Your task to perform on an android device: stop showing notifications on the lock screen Image 0: 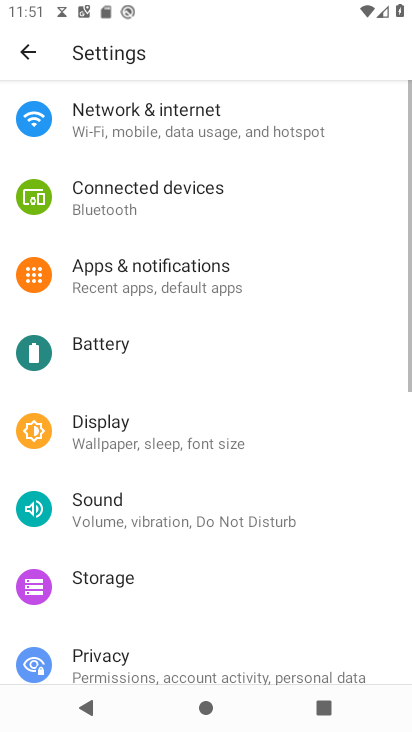
Step 0: drag from (323, 470) to (409, 363)
Your task to perform on an android device: stop showing notifications on the lock screen Image 1: 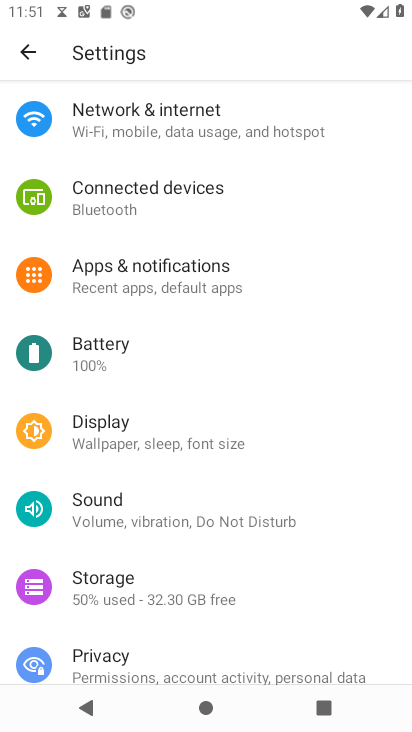
Step 1: drag from (260, 591) to (237, 258)
Your task to perform on an android device: stop showing notifications on the lock screen Image 2: 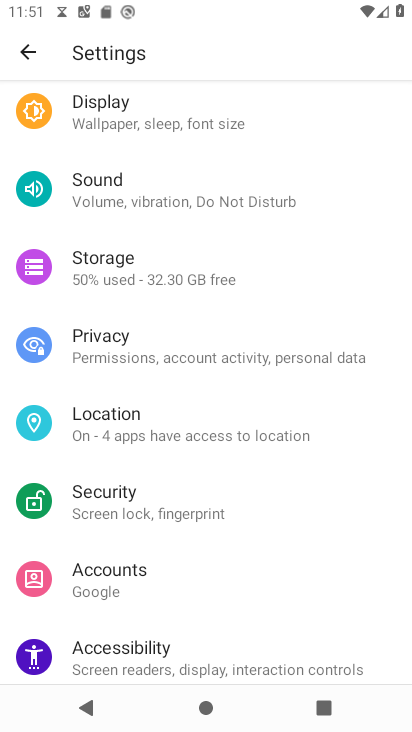
Step 2: click (229, 119)
Your task to perform on an android device: stop showing notifications on the lock screen Image 3: 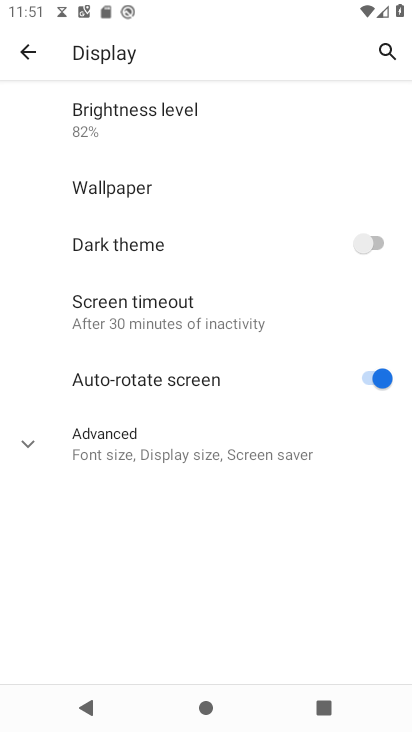
Step 3: press home button
Your task to perform on an android device: stop showing notifications on the lock screen Image 4: 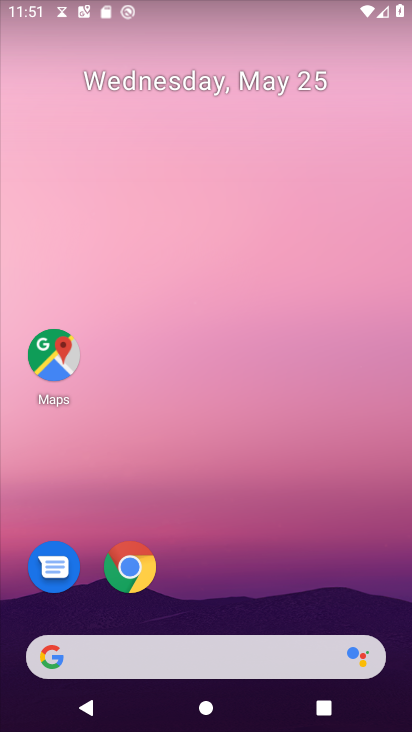
Step 4: drag from (278, 502) to (257, 240)
Your task to perform on an android device: stop showing notifications on the lock screen Image 5: 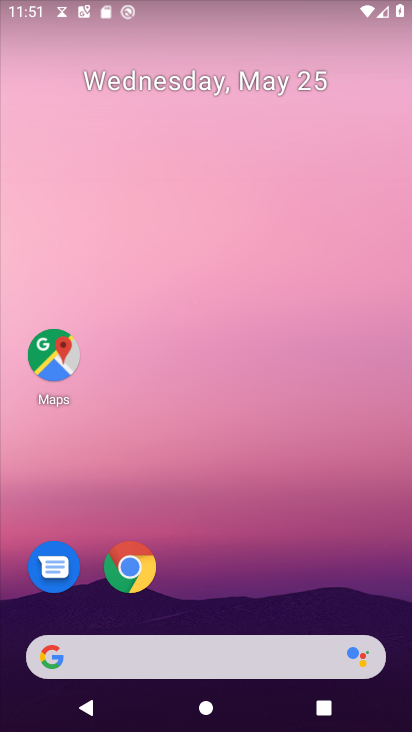
Step 5: drag from (265, 605) to (278, 65)
Your task to perform on an android device: stop showing notifications on the lock screen Image 6: 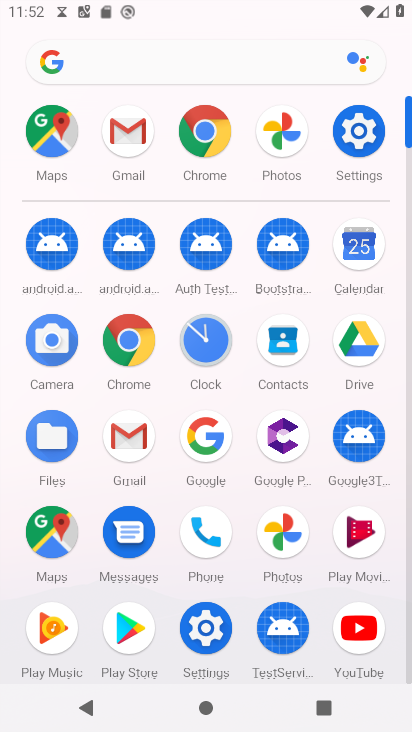
Step 6: click (355, 132)
Your task to perform on an android device: stop showing notifications on the lock screen Image 7: 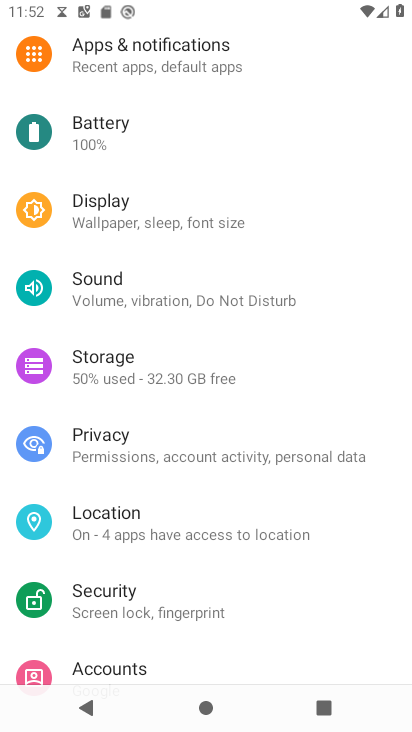
Step 7: click (183, 61)
Your task to perform on an android device: stop showing notifications on the lock screen Image 8: 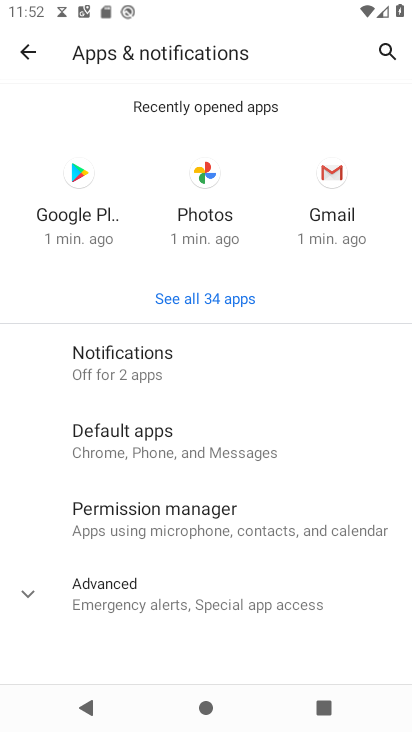
Step 8: click (182, 577)
Your task to perform on an android device: stop showing notifications on the lock screen Image 9: 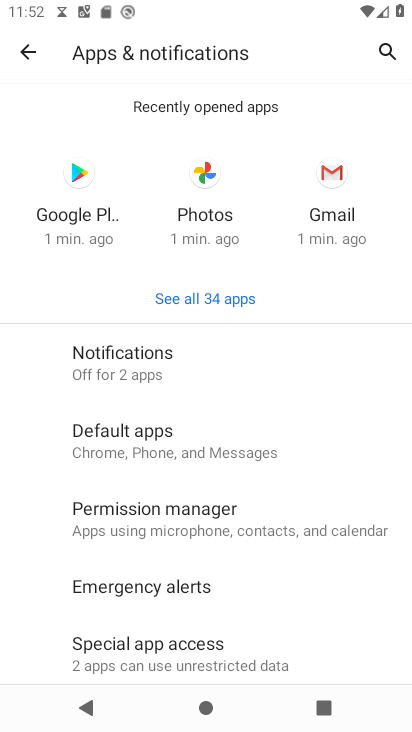
Step 9: drag from (215, 637) to (255, 341)
Your task to perform on an android device: stop showing notifications on the lock screen Image 10: 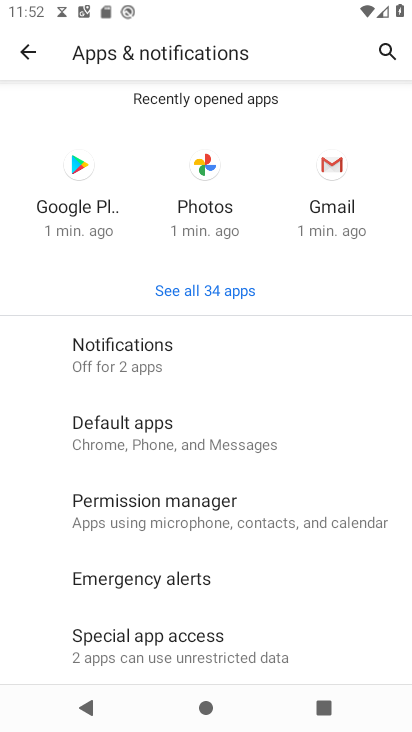
Step 10: press back button
Your task to perform on an android device: stop showing notifications on the lock screen Image 11: 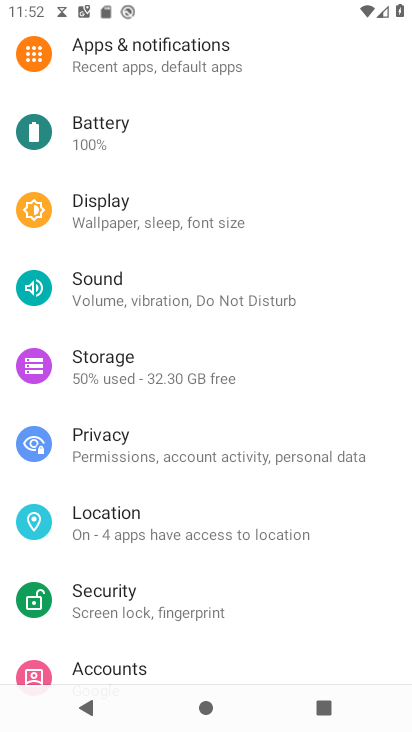
Step 11: drag from (211, 152) to (221, 595)
Your task to perform on an android device: stop showing notifications on the lock screen Image 12: 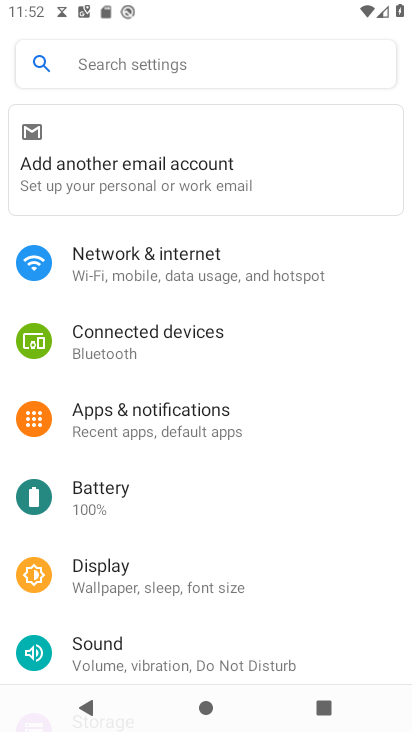
Step 12: drag from (232, 586) to (233, 230)
Your task to perform on an android device: stop showing notifications on the lock screen Image 13: 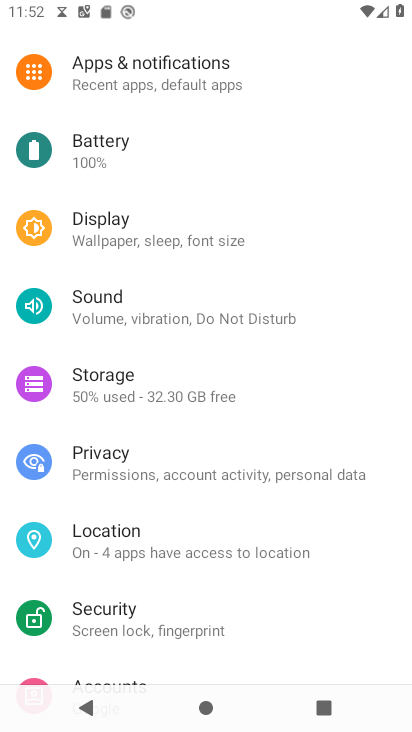
Step 13: click (124, 219)
Your task to perform on an android device: stop showing notifications on the lock screen Image 14: 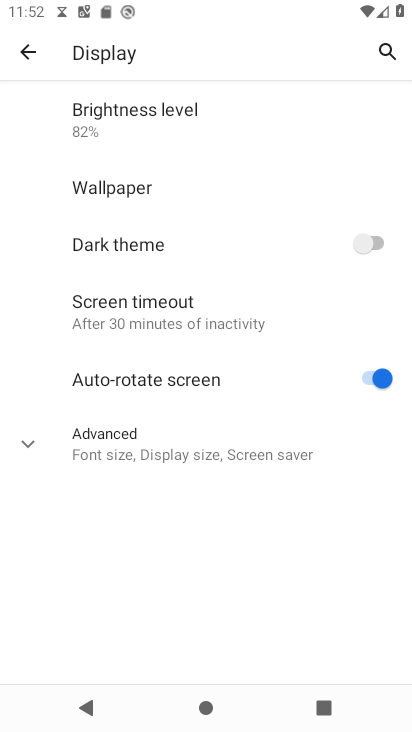
Step 14: press back button
Your task to perform on an android device: stop showing notifications on the lock screen Image 15: 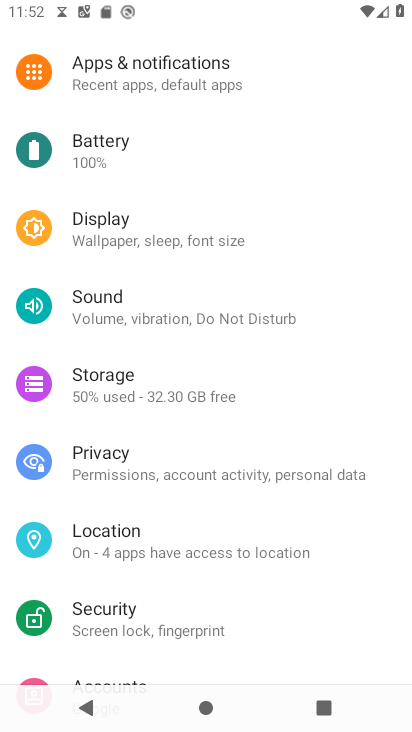
Step 15: drag from (222, 178) to (216, 654)
Your task to perform on an android device: stop showing notifications on the lock screen Image 16: 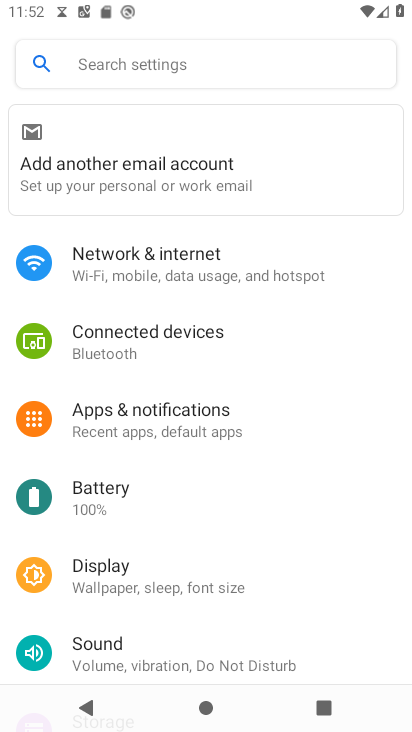
Step 16: drag from (232, 556) to (223, 200)
Your task to perform on an android device: stop showing notifications on the lock screen Image 17: 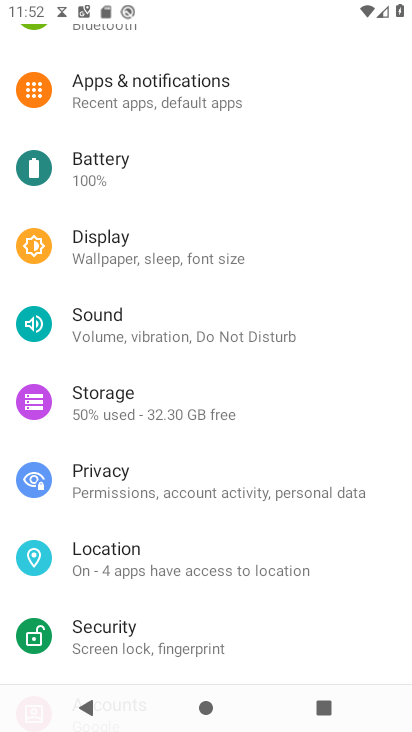
Step 17: drag from (160, 495) to (154, 279)
Your task to perform on an android device: stop showing notifications on the lock screen Image 18: 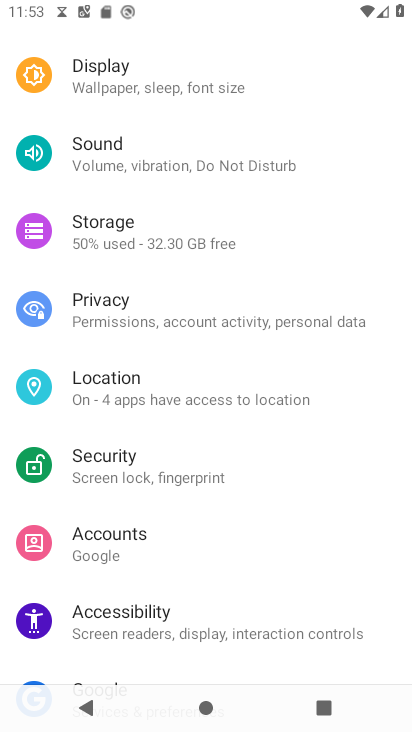
Step 18: drag from (120, 513) to (148, 269)
Your task to perform on an android device: stop showing notifications on the lock screen Image 19: 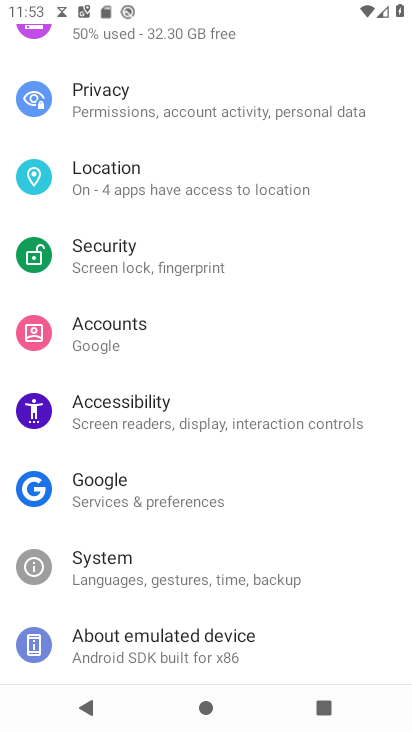
Step 19: drag from (170, 195) to (214, 659)
Your task to perform on an android device: stop showing notifications on the lock screen Image 20: 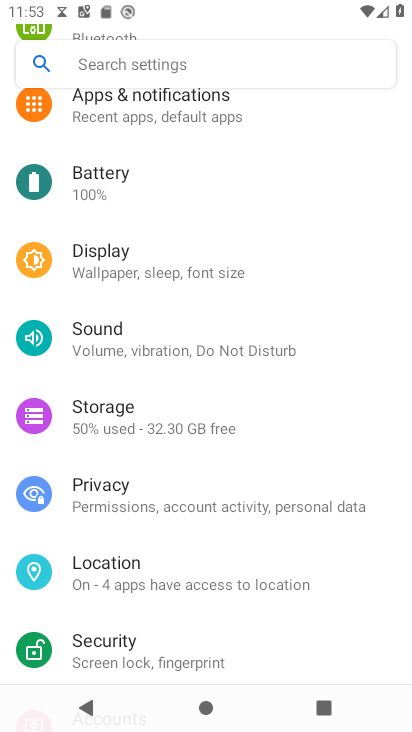
Step 20: drag from (231, 246) to (249, 561)
Your task to perform on an android device: stop showing notifications on the lock screen Image 21: 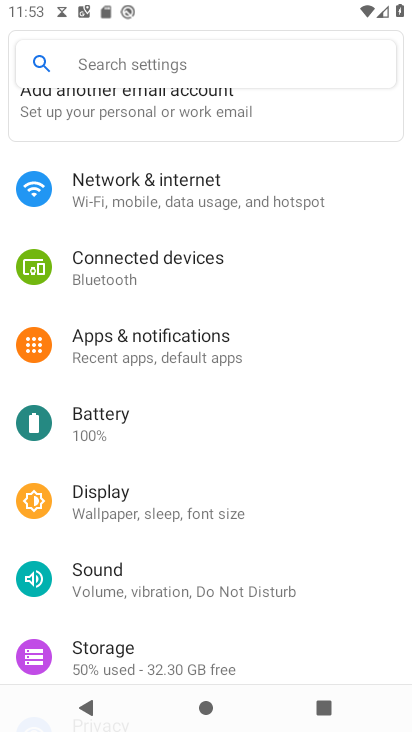
Step 21: click (161, 331)
Your task to perform on an android device: stop showing notifications on the lock screen Image 22: 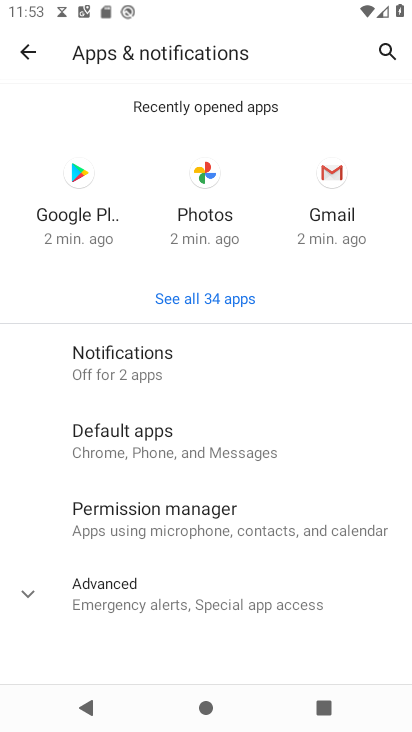
Step 22: click (103, 606)
Your task to perform on an android device: stop showing notifications on the lock screen Image 23: 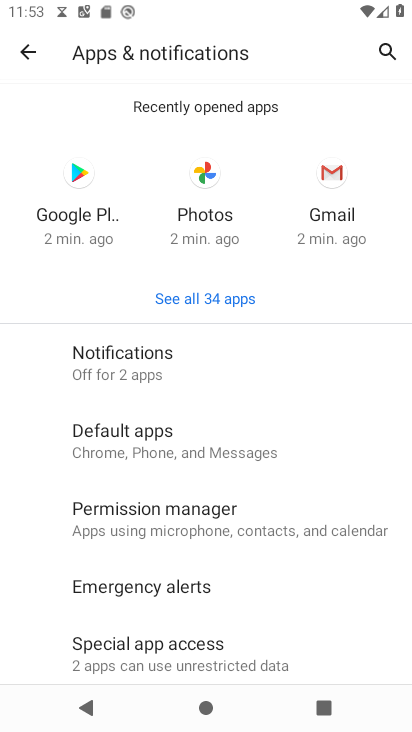
Step 23: press back button
Your task to perform on an android device: stop showing notifications on the lock screen Image 24: 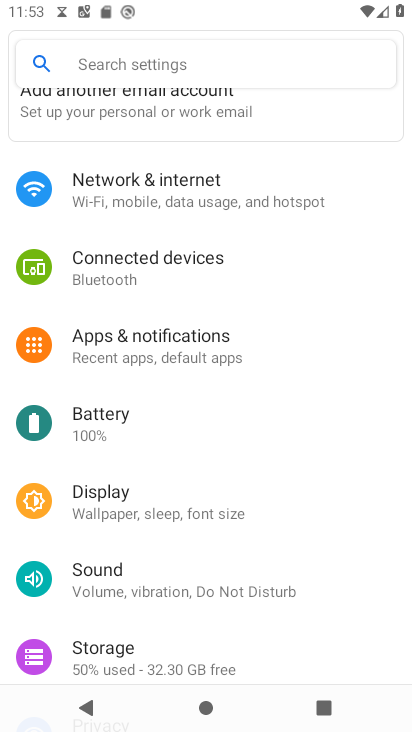
Step 24: drag from (167, 600) to (168, 374)
Your task to perform on an android device: stop showing notifications on the lock screen Image 25: 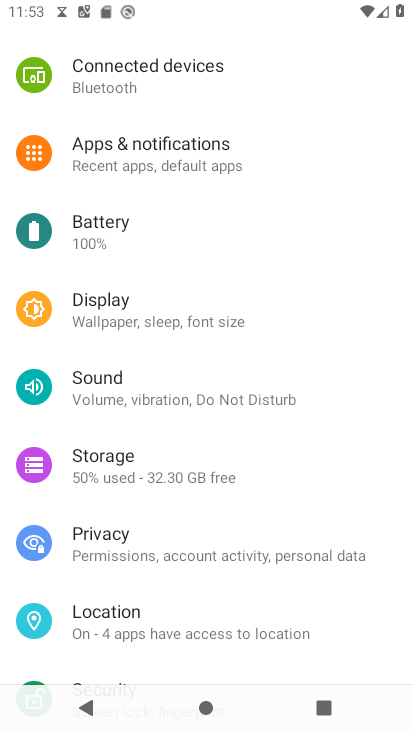
Step 25: drag from (160, 637) to (197, 242)
Your task to perform on an android device: stop showing notifications on the lock screen Image 26: 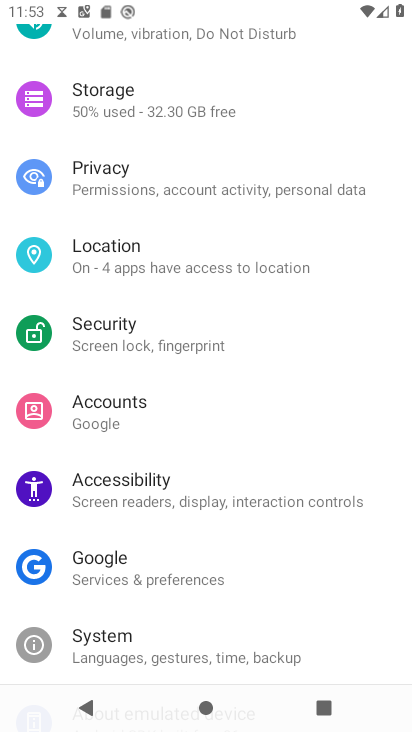
Step 26: drag from (135, 641) to (163, 263)
Your task to perform on an android device: stop showing notifications on the lock screen Image 27: 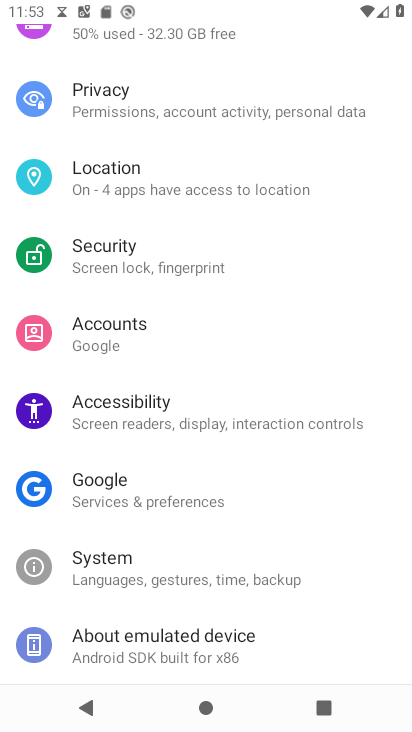
Step 27: click (82, 649)
Your task to perform on an android device: stop showing notifications on the lock screen Image 28: 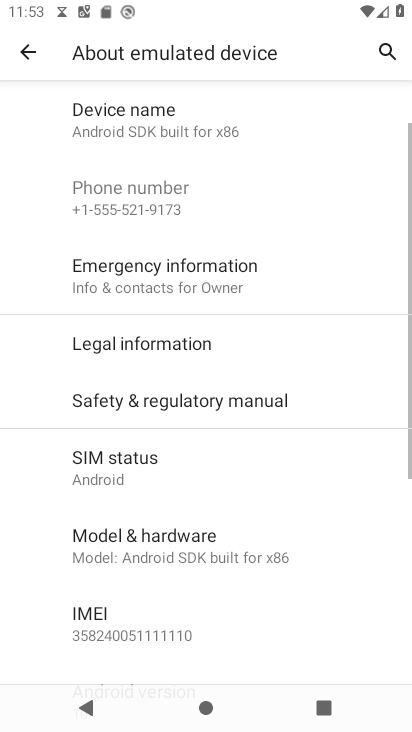
Step 28: task complete